Your task to perform on an android device: refresh tabs in the chrome app Image 0: 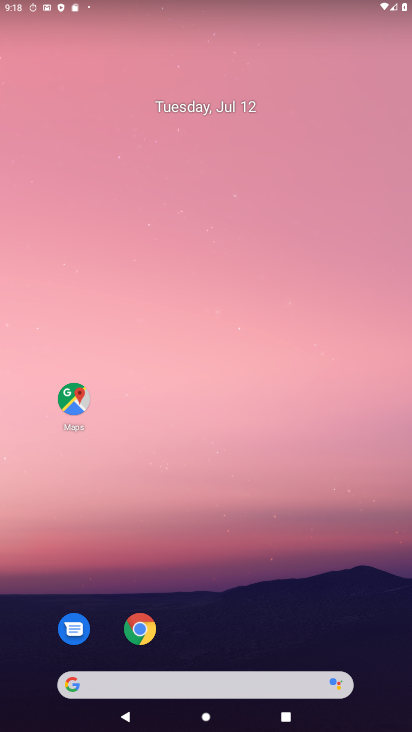
Step 0: drag from (341, 696) to (338, 276)
Your task to perform on an android device: refresh tabs in the chrome app Image 1: 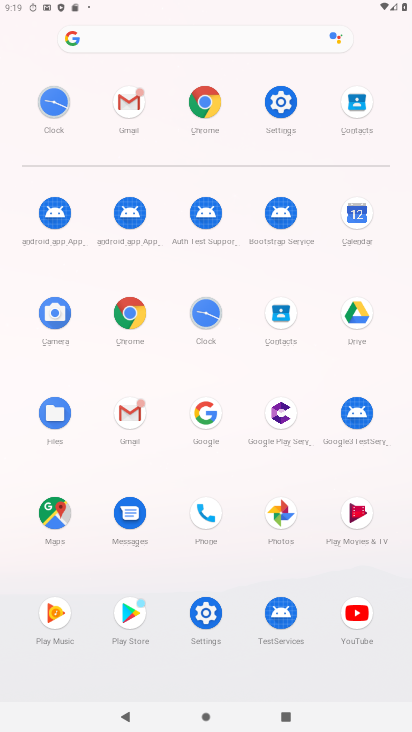
Step 1: click (202, 105)
Your task to perform on an android device: refresh tabs in the chrome app Image 2: 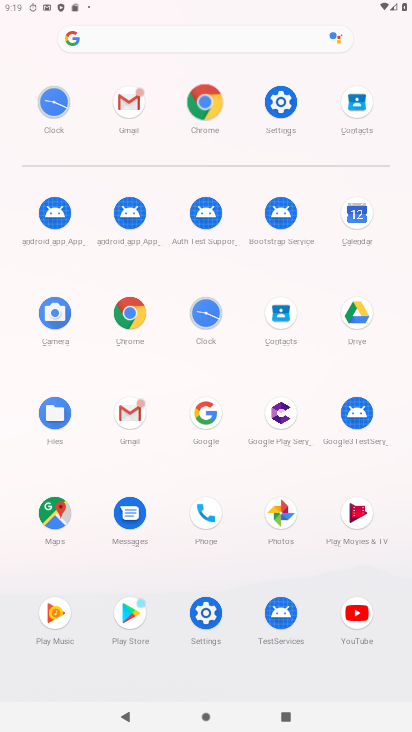
Step 2: click (206, 102)
Your task to perform on an android device: refresh tabs in the chrome app Image 3: 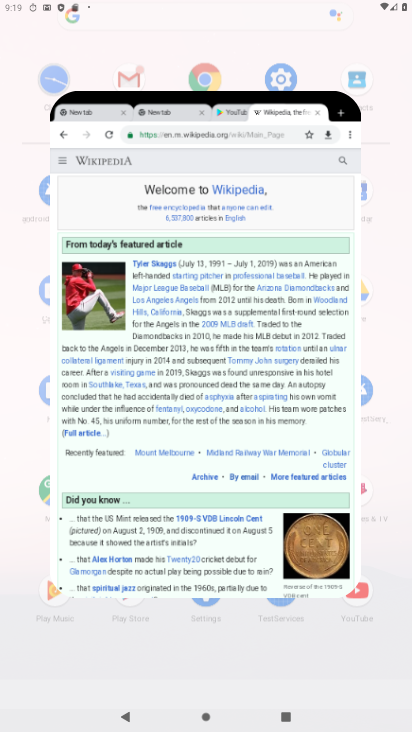
Step 3: click (210, 99)
Your task to perform on an android device: refresh tabs in the chrome app Image 4: 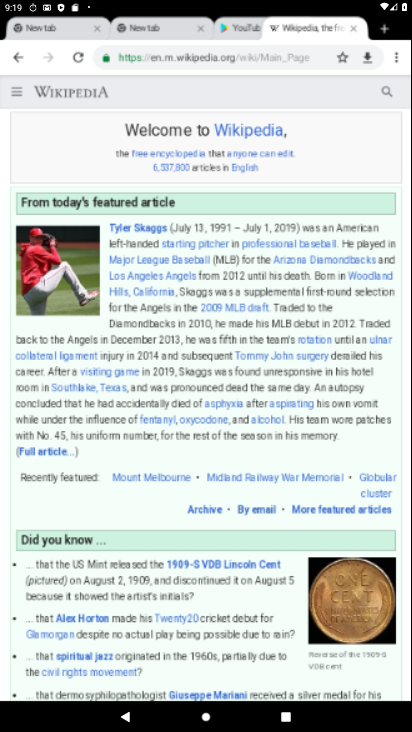
Step 4: click (221, 94)
Your task to perform on an android device: refresh tabs in the chrome app Image 5: 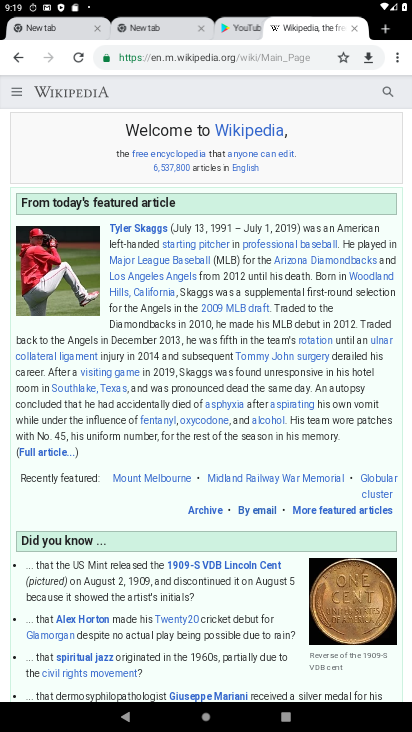
Step 5: click (54, 57)
Your task to perform on an android device: refresh tabs in the chrome app Image 6: 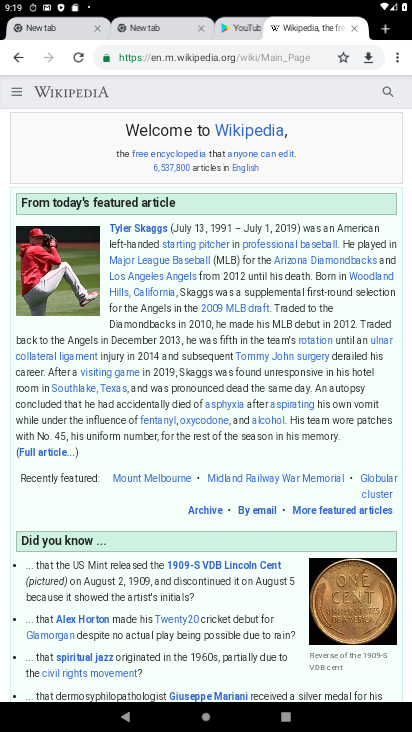
Step 6: click (76, 55)
Your task to perform on an android device: refresh tabs in the chrome app Image 7: 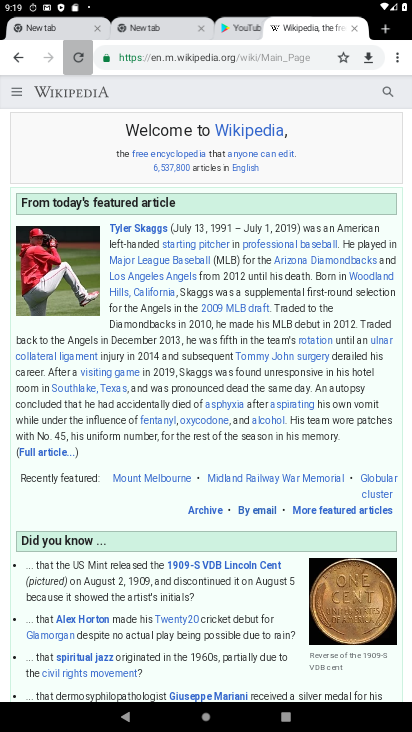
Step 7: click (87, 59)
Your task to perform on an android device: refresh tabs in the chrome app Image 8: 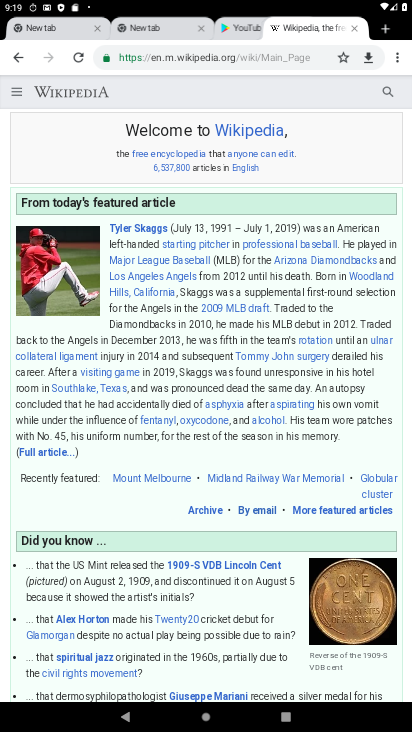
Step 8: click (70, 58)
Your task to perform on an android device: refresh tabs in the chrome app Image 9: 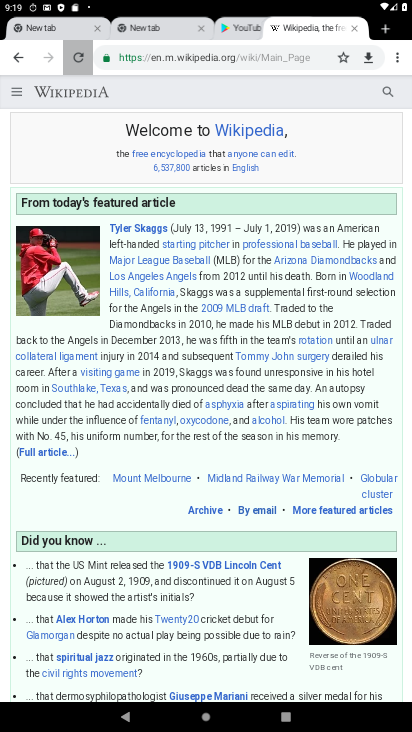
Step 9: click (94, 44)
Your task to perform on an android device: refresh tabs in the chrome app Image 10: 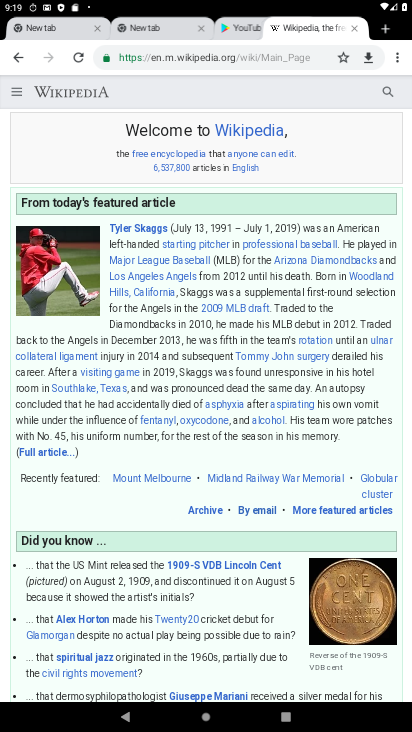
Step 10: task complete